Your task to perform on an android device: remove spam from my inbox in the gmail app Image 0: 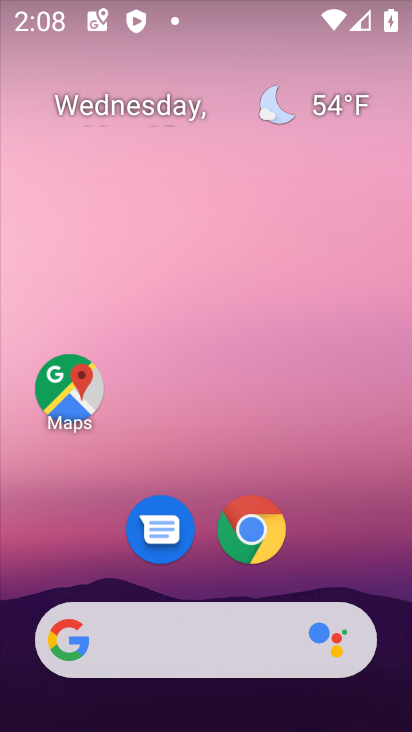
Step 0: drag from (196, 562) to (290, 139)
Your task to perform on an android device: remove spam from my inbox in the gmail app Image 1: 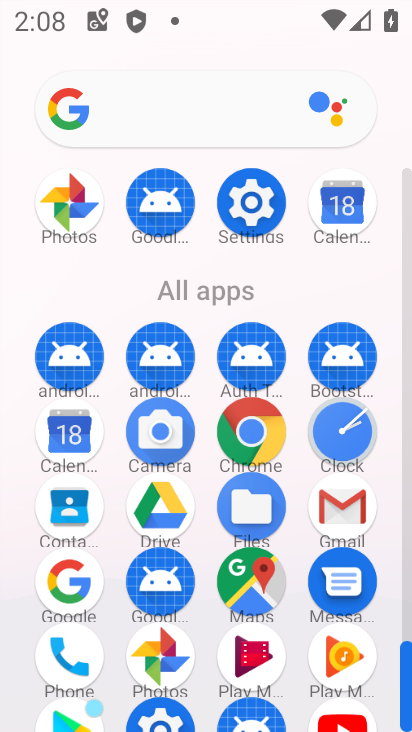
Step 1: click (329, 500)
Your task to perform on an android device: remove spam from my inbox in the gmail app Image 2: 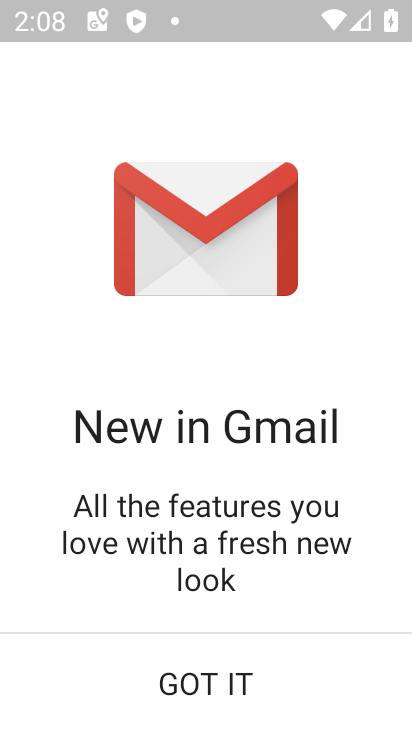
Step 2: click (195, 662)
Your task to perform on an android device: remove spam from my inbox in the gmail app Image 3: 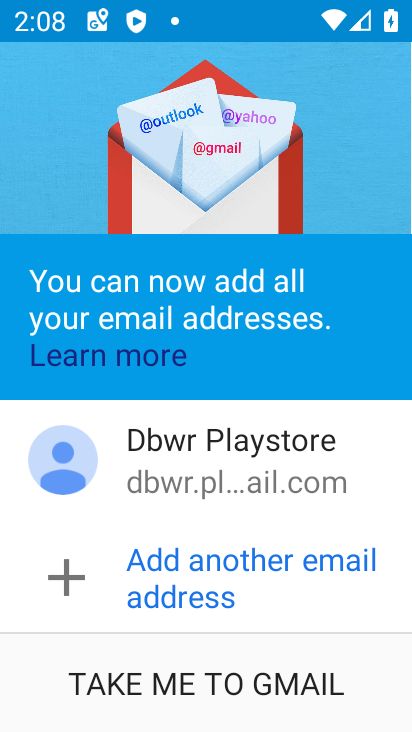
Step 3: click (257, 685)
Your task to perform on an android device: remove spam from my inbox in the gmail app Image 4: 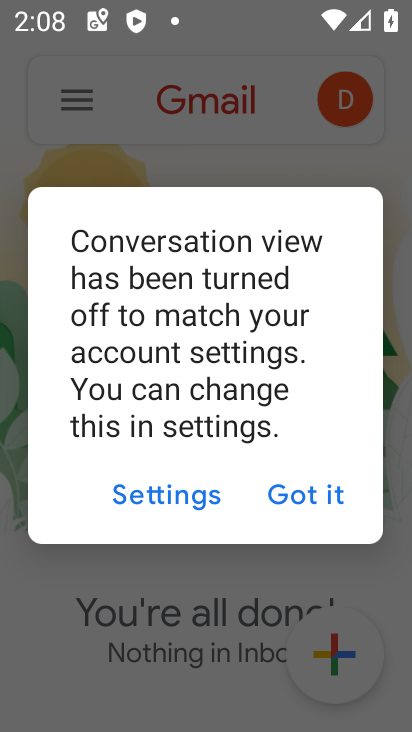
Step 4: click (296, 493)
Your task to perform on an android device: remove spam from my inbox in the gmail app Image 5: 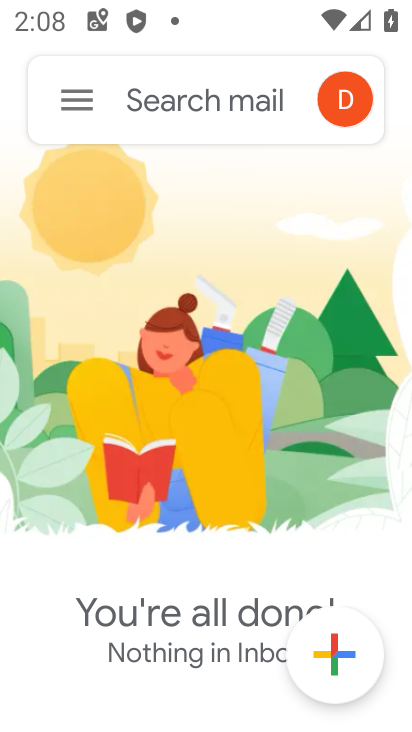
Step 5: click (63, 104)
Your task to perform on an android device: remove spam from my inbox in the gmail app Image 6: 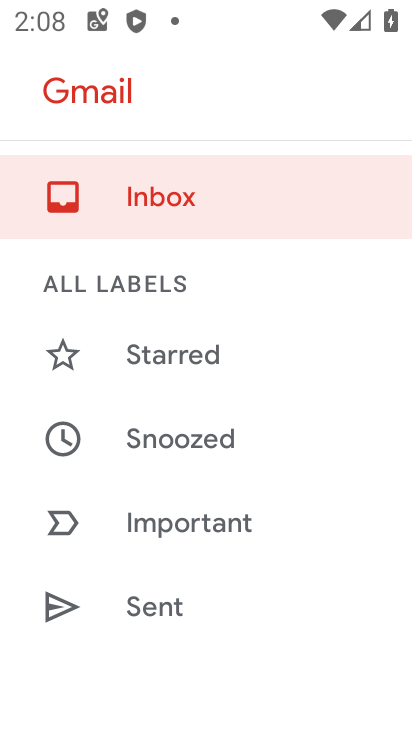
Step 6: drag from (143, 610) to (240, 103)
Your task to perform on an android device: remove spam from my inbox in the gmail app Image 7: 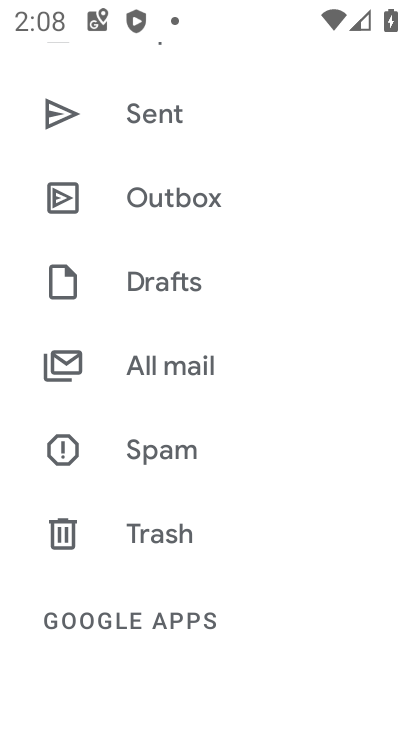
Step 7: click (160, 451)
Your task to perform on an android device: remove spam from my inbox in the gmail app Image 8: 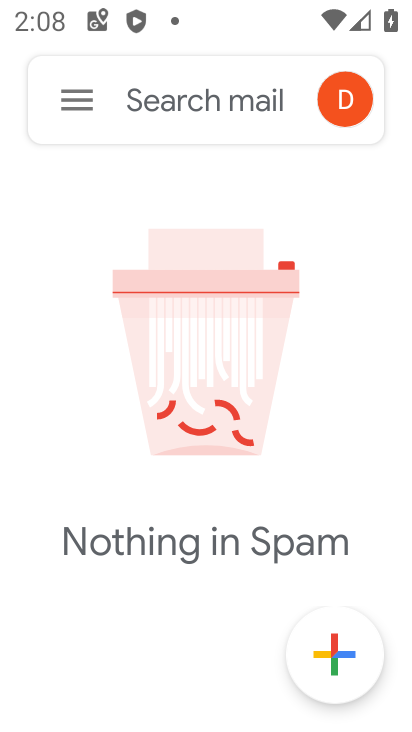
Step 8: task complete